Your task to perform on an android device: Open calendar and show me the first week of next month Image 0: 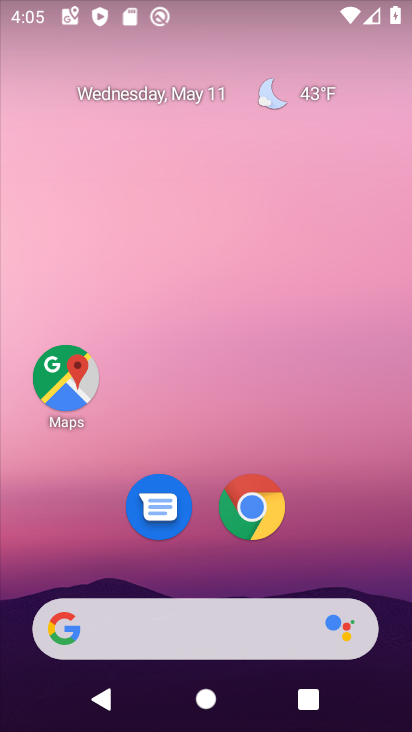
Step 0: drag from (246, 609) to (249, 118)
Your task to perform on an android device: Open calendar and show me the first week of next month Image 1: 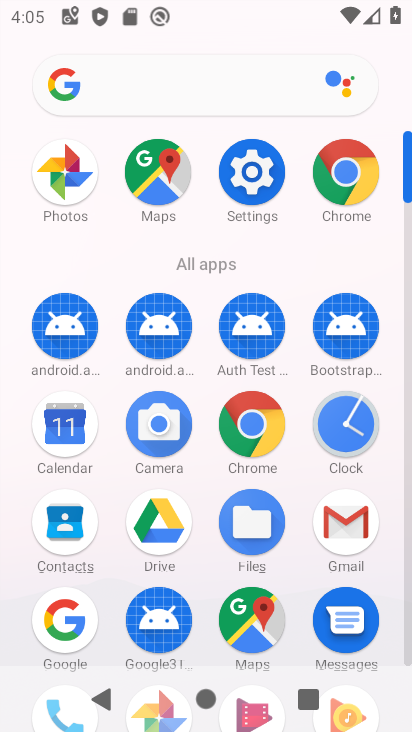
Step 1: click (86, 445)
Your task to perform on an android device: Open calendar and show me the first week of next month Image 2: 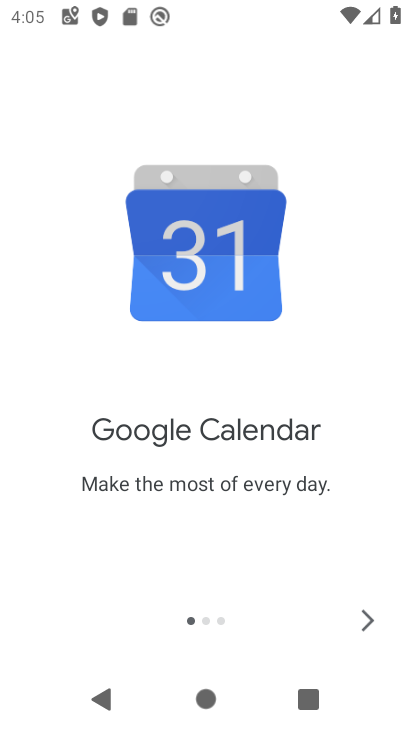
Step 2: click (366, 618)
Your task to perform on an android device: Open calendar and show me the first week of next month Image 3: 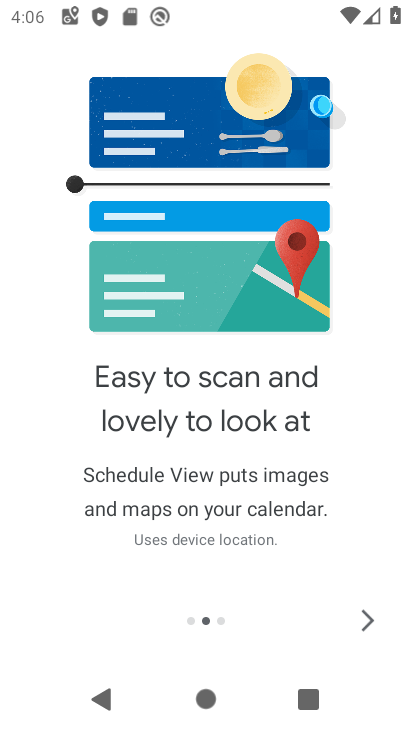
Step 3: click (364, 615)
Your task to perform on an android device: Open calendar and show me the first week of next month Image 4: 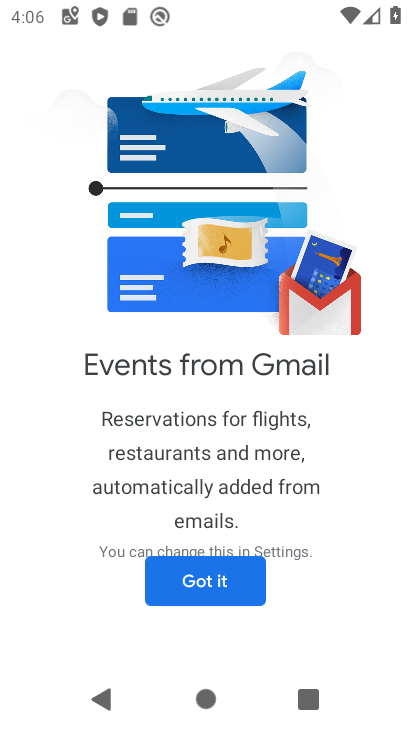
Step 4: click (229, 578)
Your task to perform on an android device: Open calendar and show me the first week of next month Image 5: 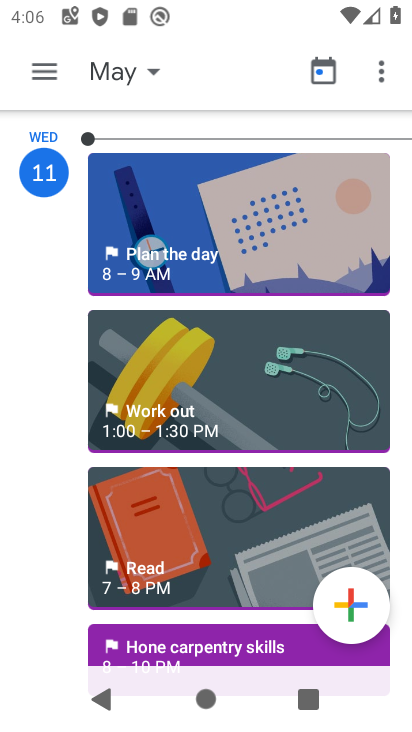
Step 5: click (157, 71)
Your task to perform on an android device: Open calendar and show me the first week of next month Image 6: 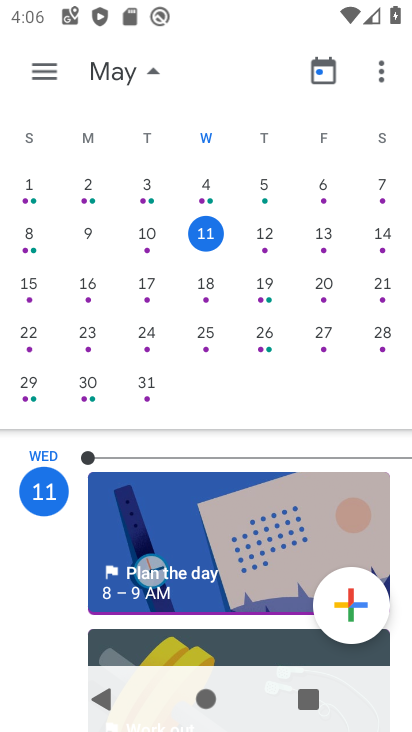
Step 6: drag from (333, 298) to (4, 258)
Your task to perform on an android device: Open calendar and show me the first week of next month Image 7: 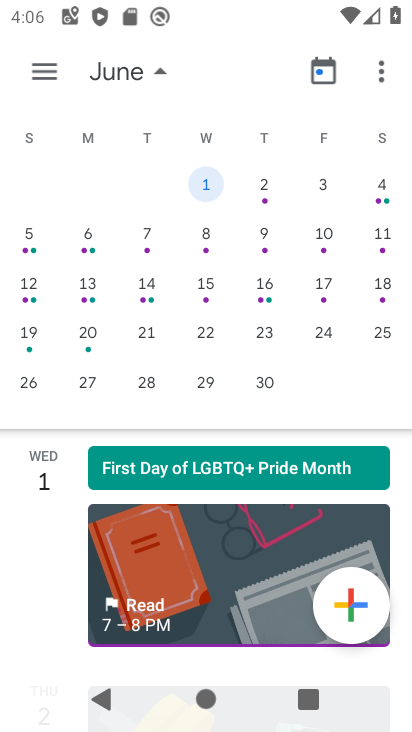
Step 7: click (38, 245)
Your task to perform on an android device: Open calendar and show me the first week of next month Image 8: 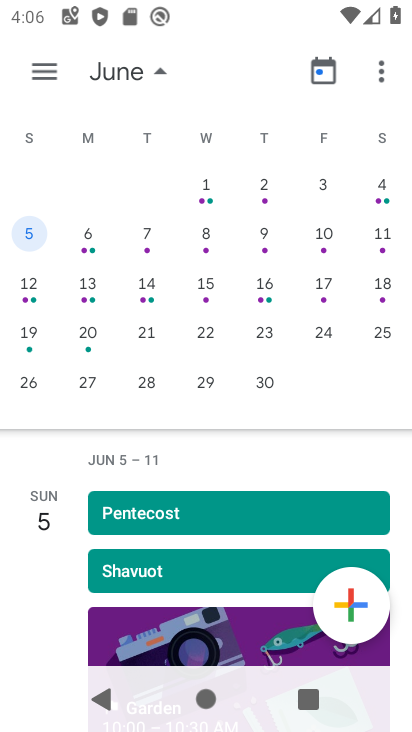
Step 8: task complete